Your task to perform on an android device: change the clock display to show seconds Image 0: 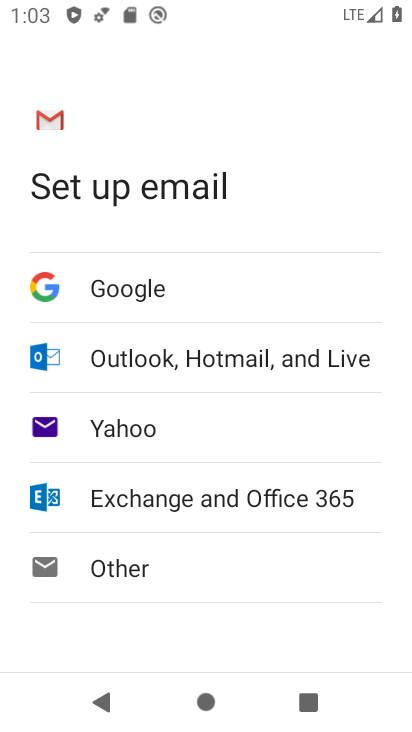
Step 0: press home button
Your task to perform on an android device: change the clock display to show seconds Image 1: 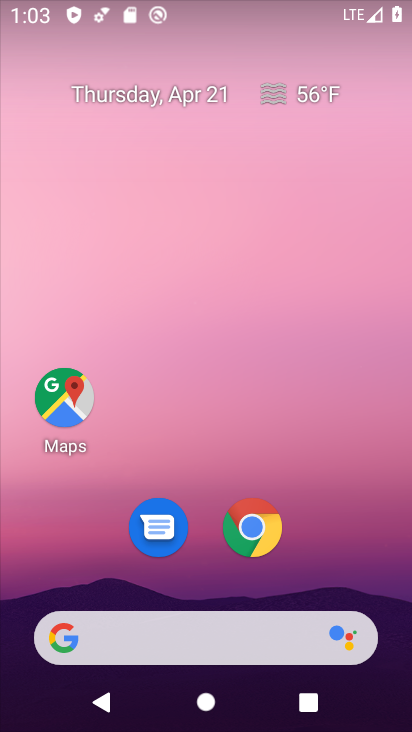
Step 1: drag from (205, 586) to (262, 167)
Your task to perform on an android device: change the clock display to show seconds Image 2: 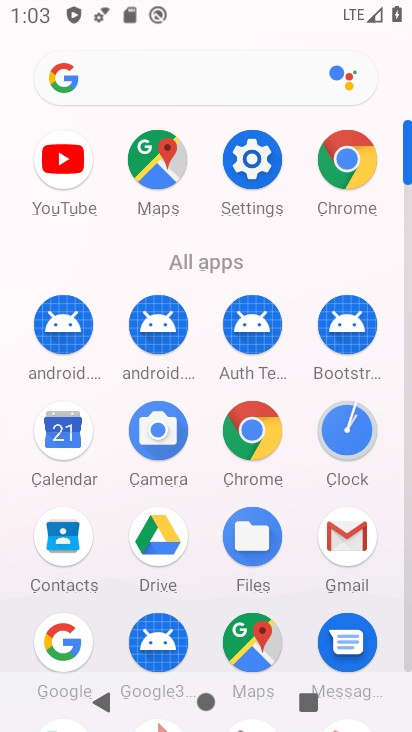
Step 2: click (352, 441)
Your task to perform on an android device: change the clock display to show seconds Image 3: 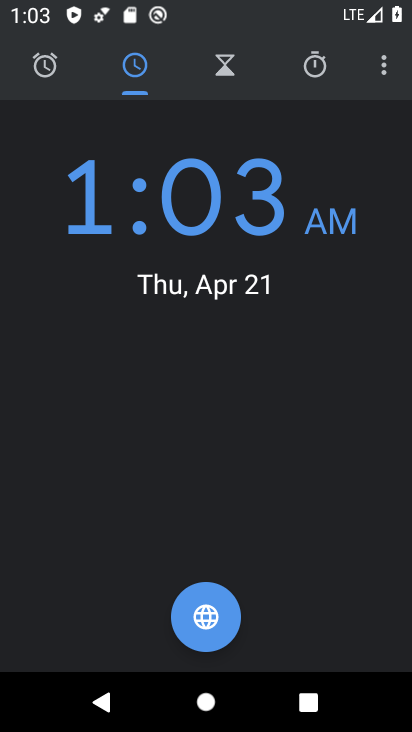
Step 3: click (387, 65)
Your task to perform on an android device: change the clock display to show seconds Image 4: 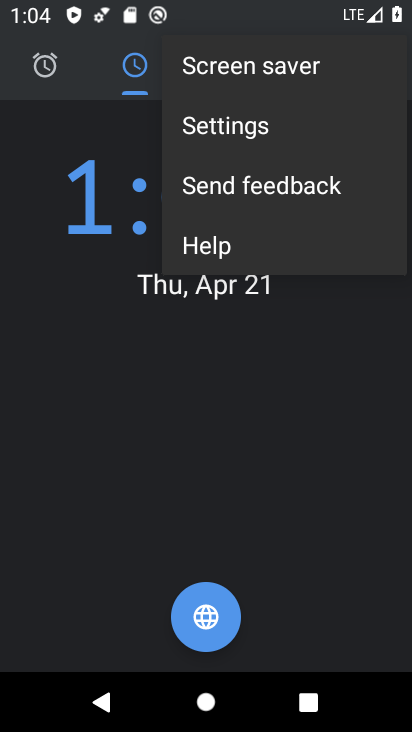
Step 4: click (261, 140)
Your task to perform on an android device: change the clock display to show seconds Image 5: 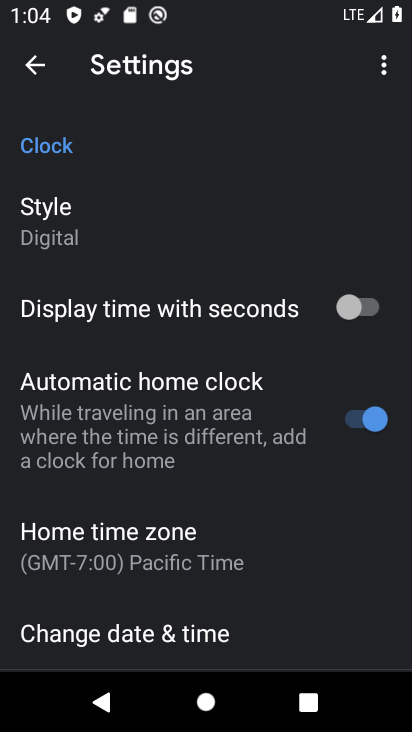
Step 5: click (351, 309)
Your task to perform on an android device: change the clock display to show seconds Image 6: 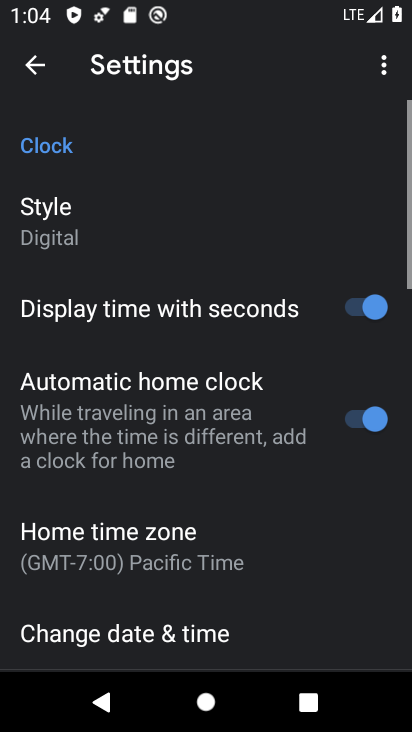
Step 6: task complete